Your task to perform on an android device: Open the calendar and show me this week's events Image 0: 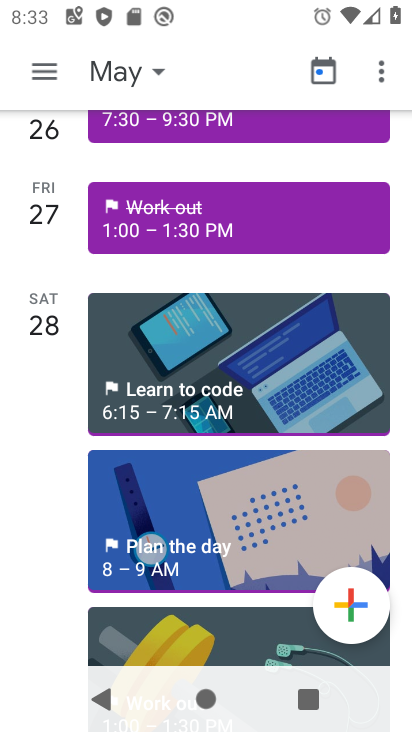
Step 0: click (41, 59)
Your task to perform on an android device: Open the calendar and show me this week's events Image 1: 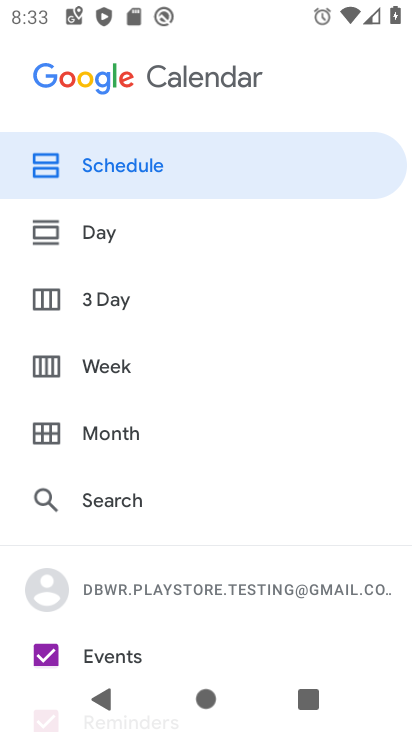
Step 1: click (116, 360)
Your task to perform on an android device: Open the calendar and show me this week's events Image 2: 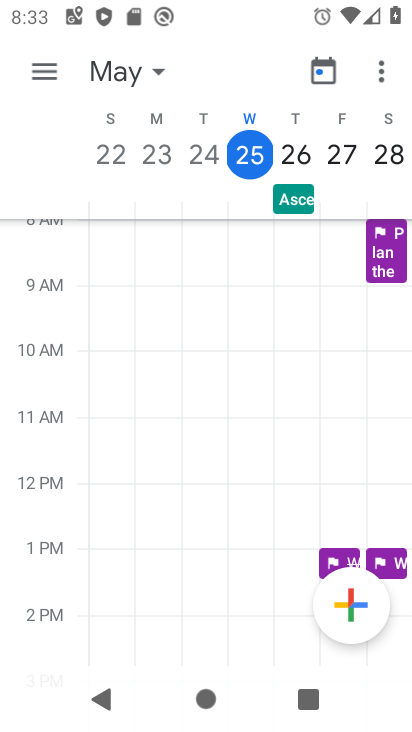
Step 2: task complete